Your task to perform on an android device: Go to display settings Image 0: 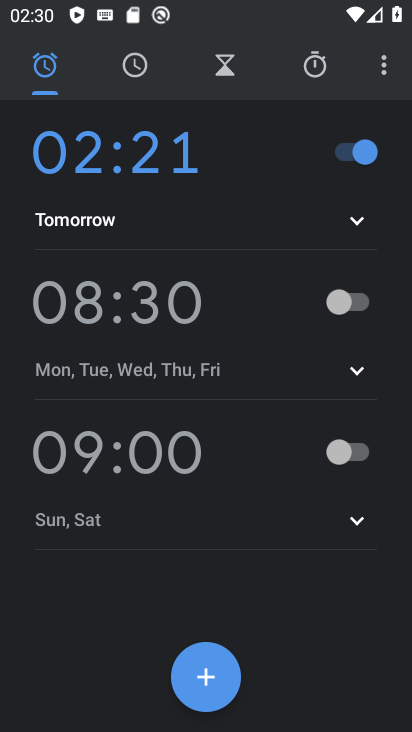
Step 0: press home button
Your task to perform on an android device: Go to display settings Image 1: 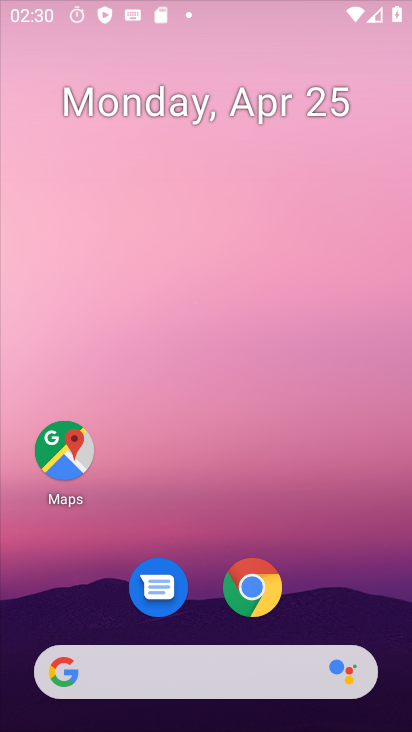
Step 1: drag from (360, 561) to (324, 85)
Your task to perform on an android device: Go to display settings Image 2: 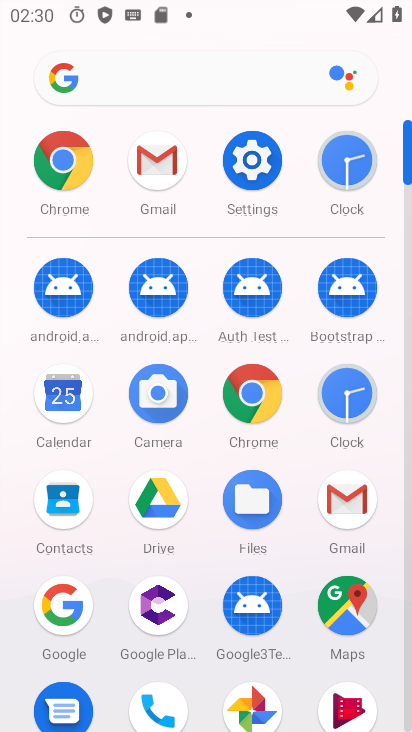
Step 2: click (246, 202)
Your task to perform on an android device: Go to display settings Image 3: 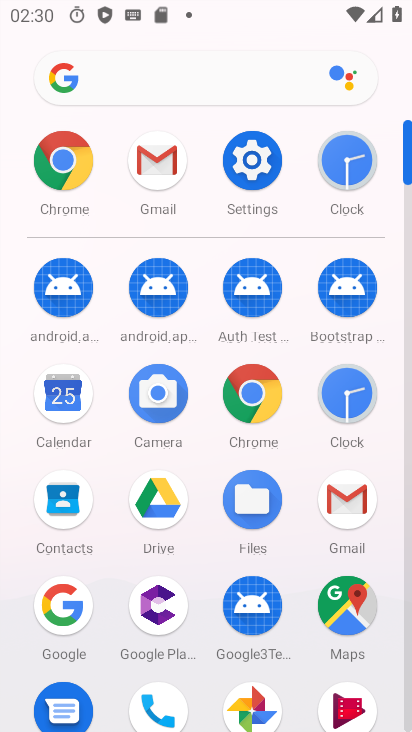
Step 3: click (261, 152)
Your task to perform on an android device: Go to display settings Image 4: 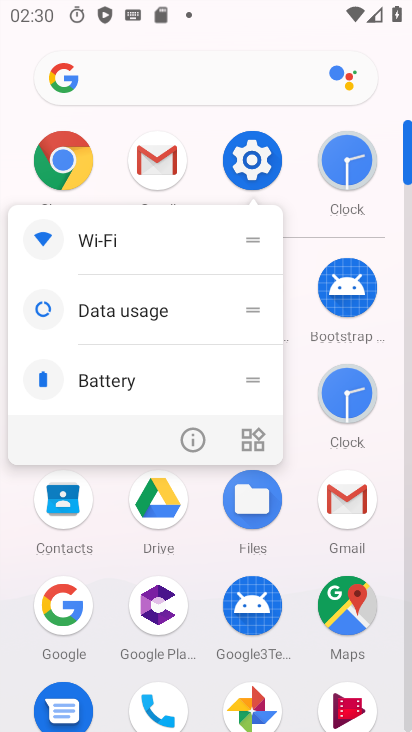
Step 4: click (263, 170)
Your task to perform on an android device: Go to display settings Image 5: 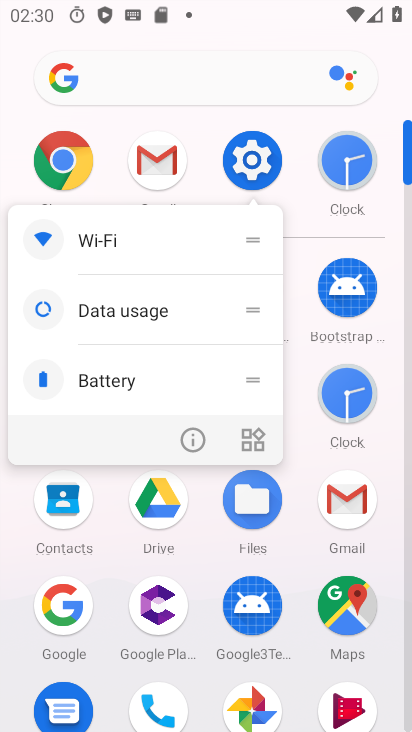
Step 5: click (256, 167)
Your task to perform on an android device: Go to display settings Image 6: 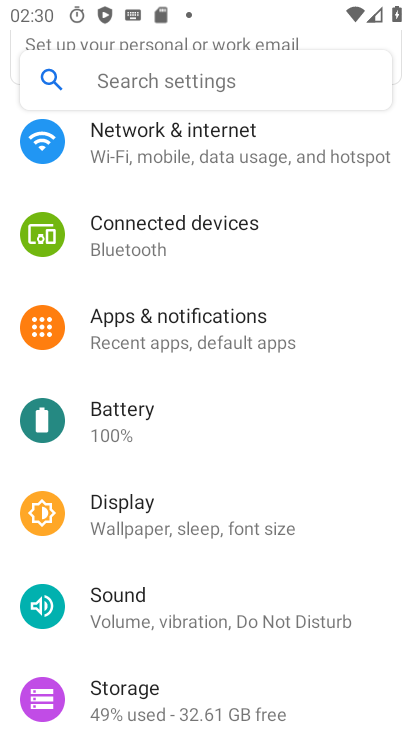
Step 6: click (175, 512)
Your task to perform on an android device: Go to display settings Image 7: 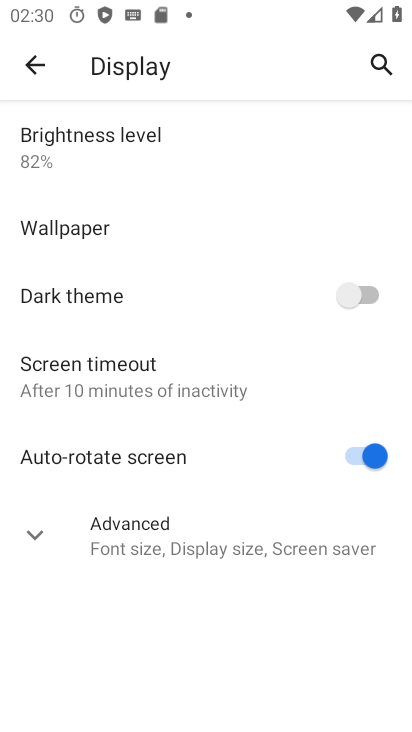
Step 7: task complete